Your task to perform on an android device: What is the news today? Image 0: 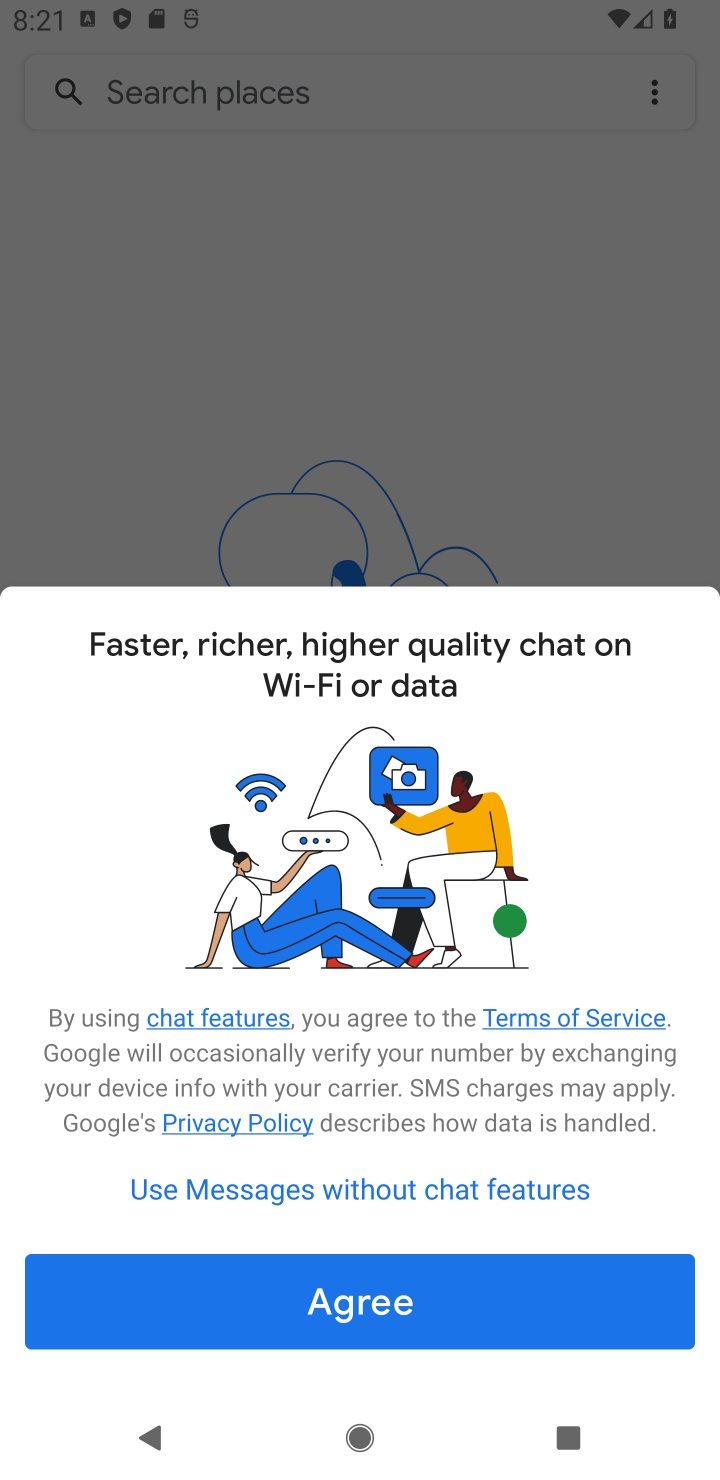
Step 0: press home button
Your task to perform on an android device: What is the news today? Image 1: 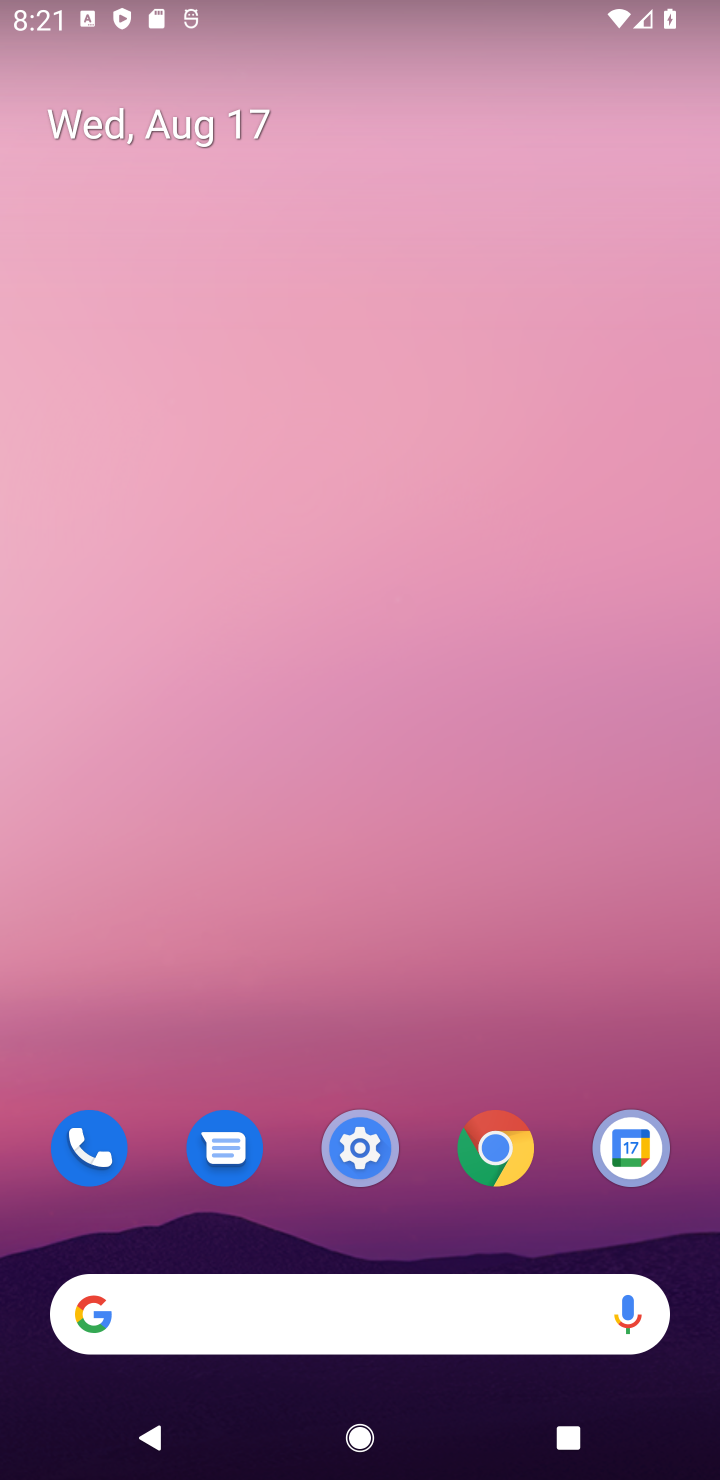
Step 1: task complete